Your task to perform on an android device: Show me productivity apps on the Play Store Image 0: 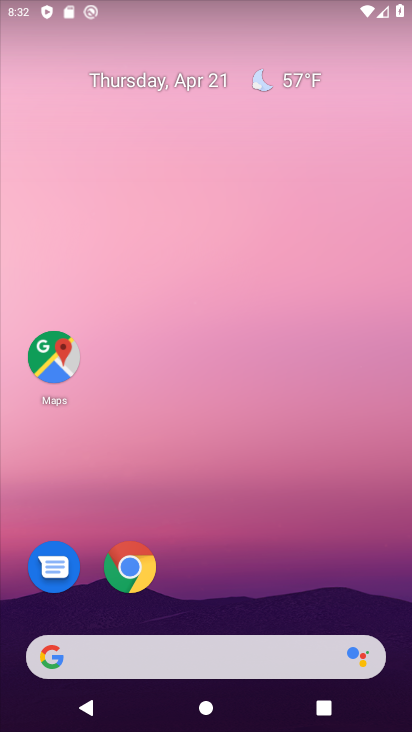
Step 0: drag from (183, 615) to (69, 43)
Your task to perform on an android device: Show me productivity apps on the Play Store Image 1: 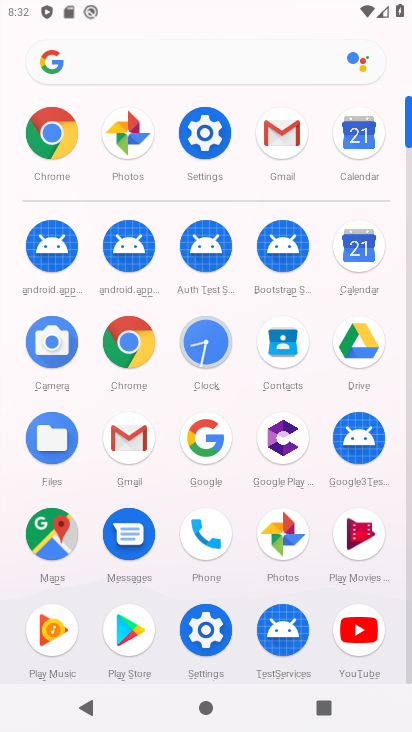
Step 1: click (133, 621)
Your task to perform on an android device: Show me productivity apps on the Play Store Image 2: 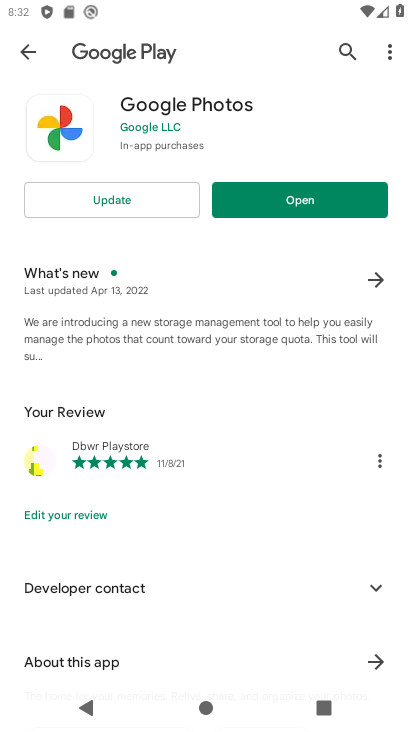
Step 2: click (269, 201)
Your task to perform on an android device: Show me productivity apps on the Play Store Image 3: 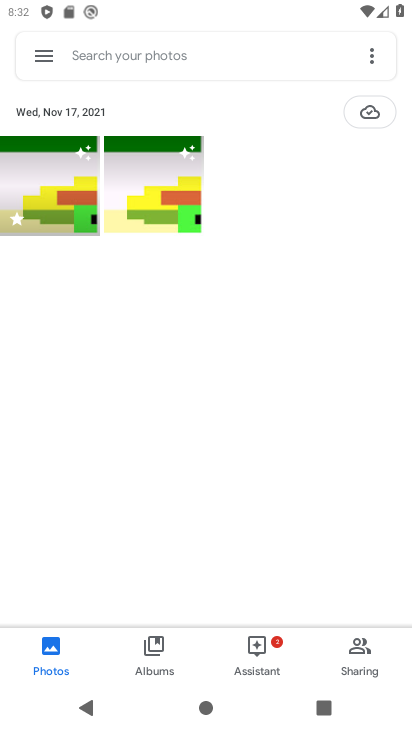
Step 3: press home button
Your task to perform on an android device: Show me productivity apps on the Play Store Image 4: 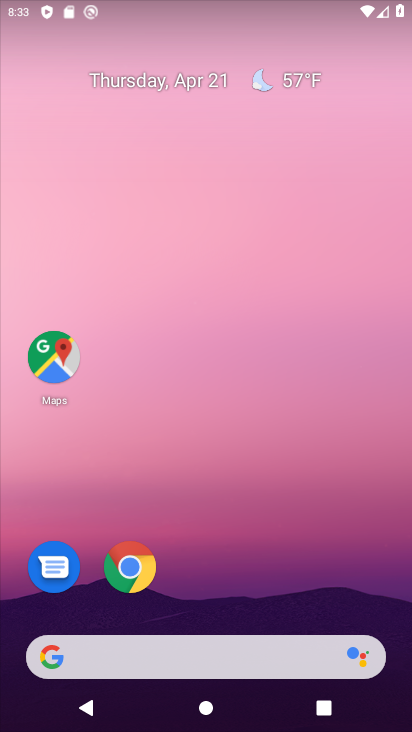
Step 4: drag from (192, 629) to (206, 0)
Your task to perform on an android device: Show me productivity apps on the Play Store Image 5: 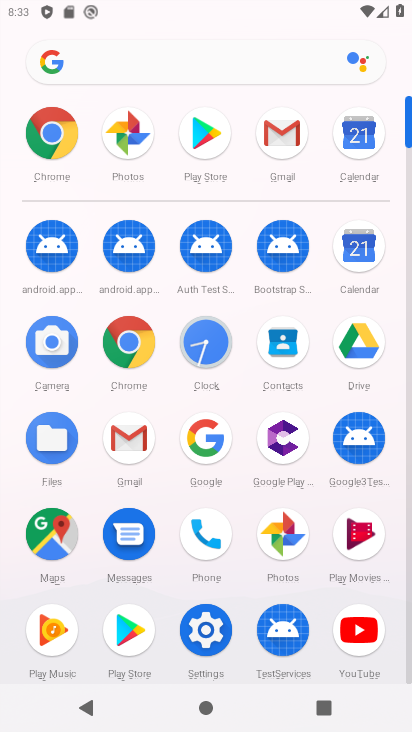
Step 5: click (141, 632)
Your task to perform on an android device: Show me productivity apps on the Play Store Image 6: 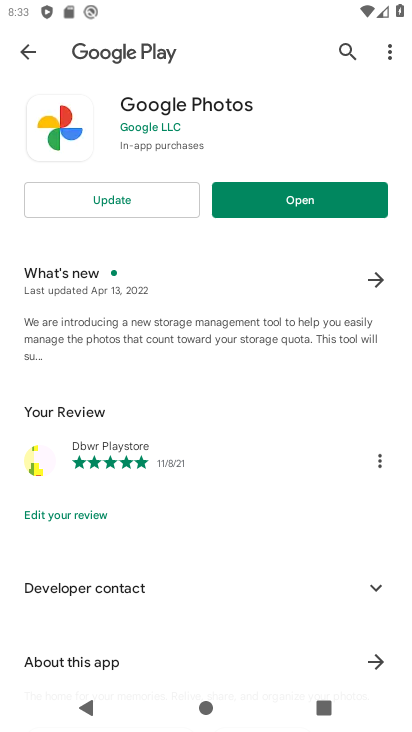
Step 6: click (22, 36)
Your task to perform on an android device: Show me productivity apps on the Play Store Image 7: 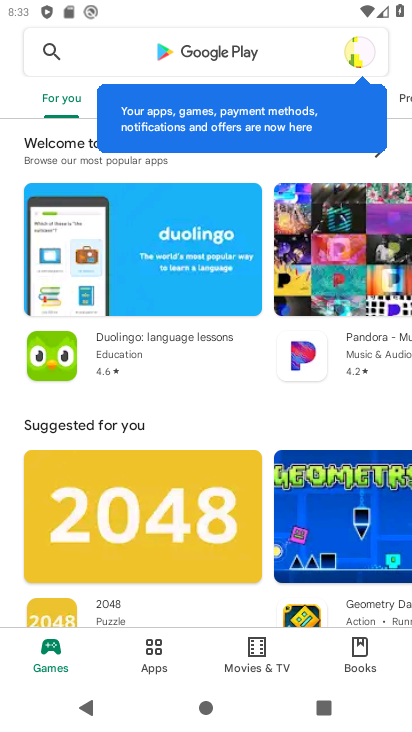
Step 7: click (153, 638)
Your task to perform on an android device: Show me productivity apps on the Play Store Image 8: 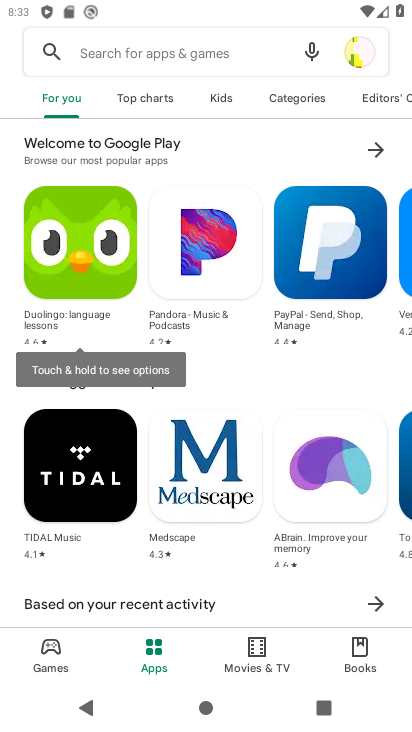
Step 8: click (320, 104)
Your task to perform on an android device: Show me productivity apps on the Play Store Image 9: 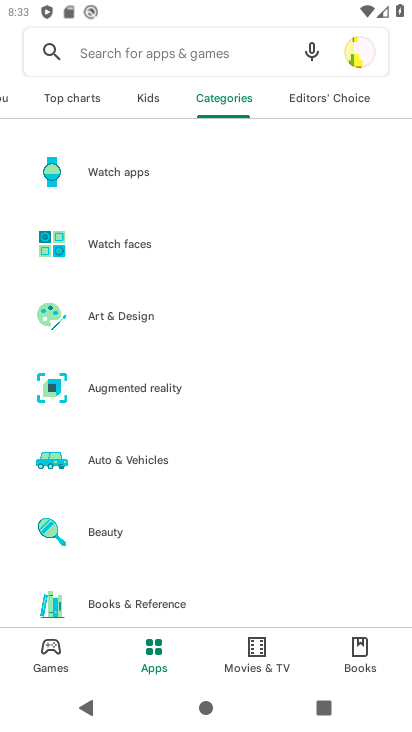
Step 9: drag from (302, 551) to (255, 9)
Your task to perform on an android device: Show me productivity apps on the Play Store Image 10: 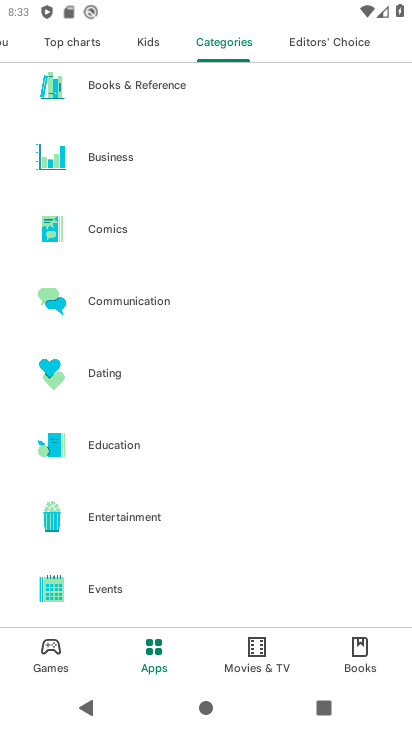
Step 10: drag from (209, 564) to (139, 1)
Your task to perform on an android device: Show me productivity apps on the Play Store Image 11: 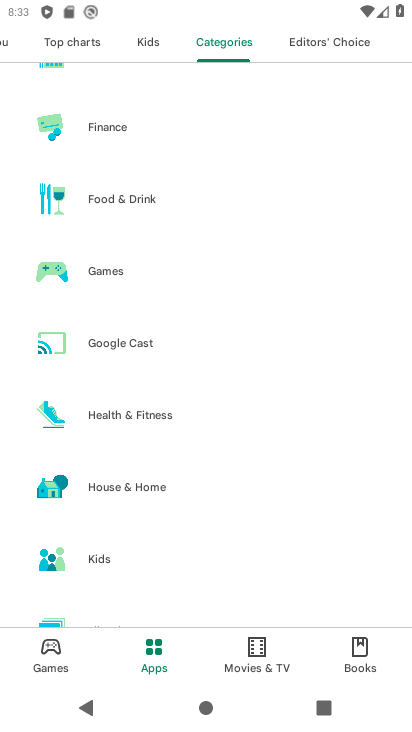
Step 11: drag from (93, 590) to (65, 112)
Your task to perform on an android device: Show me productivity apps on the Play Store Image 12: 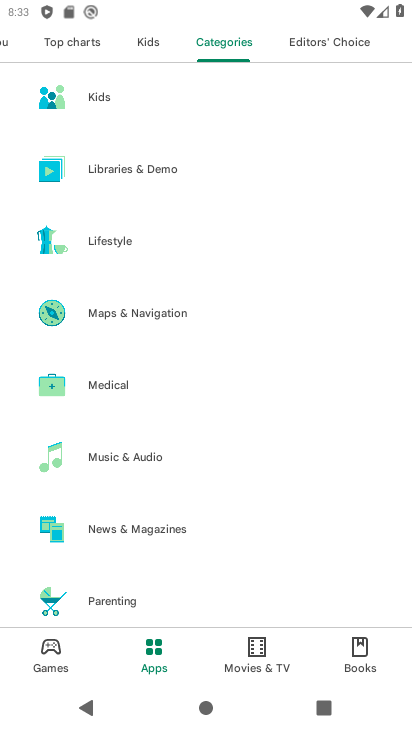
Step 12: drag from (154, 588) to (103, 156)
Your task to perform on an android device: Show me productivity apps on the Play Store Image 13: 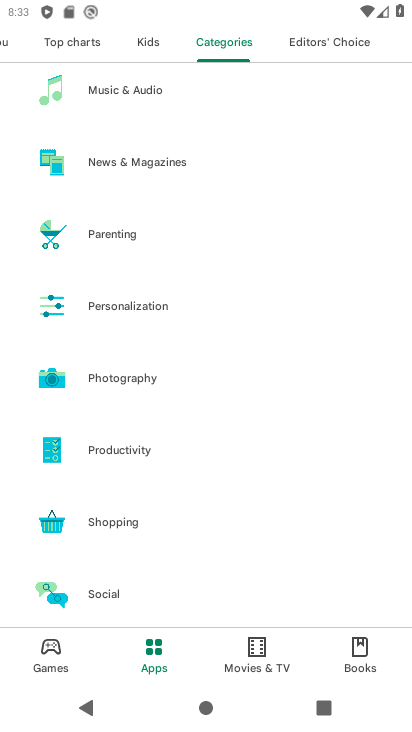
Step 13: click (82, 455)
Your task to perform on an android device: Show me productivity apps on the Play Store Image 14: 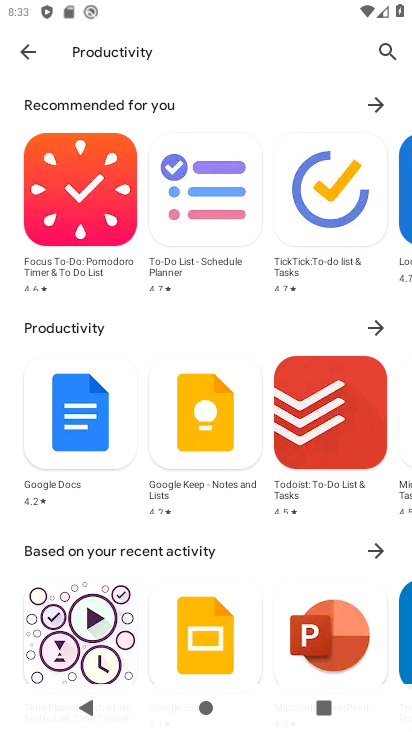
Step 14: task complete